Your task to perform on an android device: open chrome and create a bookmark for the current page Image 0: 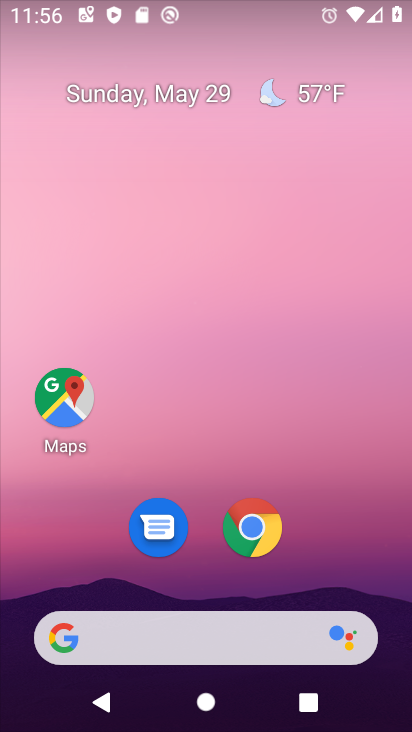
Step 0: click (248, 534)
Your task to perform on an android device: open chrome and create a bookmark for the current page Image 1: 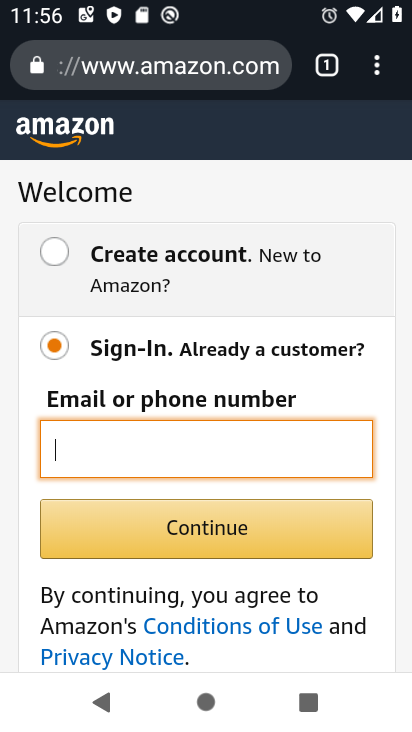
Step 1: click (372, 64)
Your task to perform on an android device: open chrome and create a bookmark for the current page Image 2: 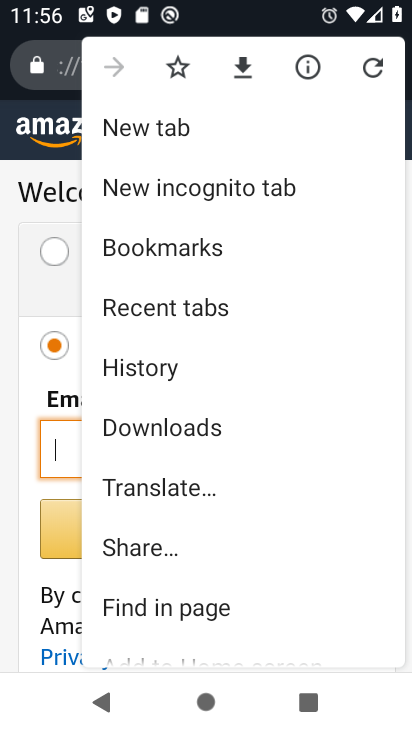
Step 2: click (380, 64)
Your task to perform on an android device: open chrome and create a bookmark for the current page Image 3: 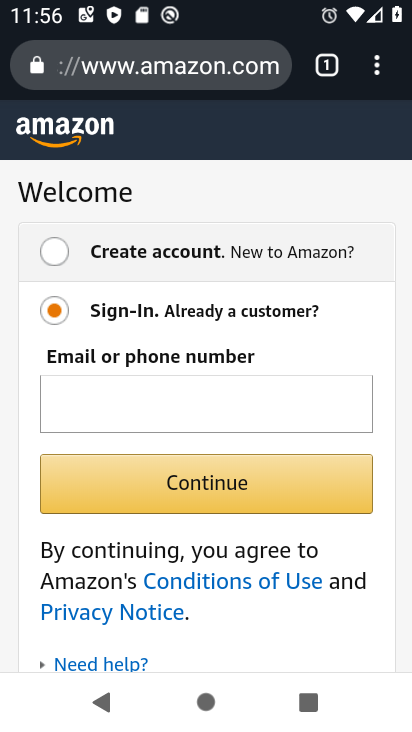
Step 3: click (179, 69)
Your task to perform on an android device: open chrome and create a bookmark for the current page Image 4: 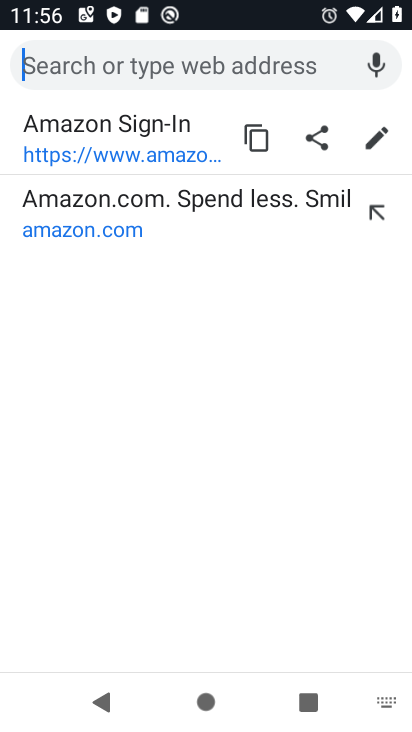
Step 4: task complete